Your task to perform on an android device: Open wifi settings Image 0: 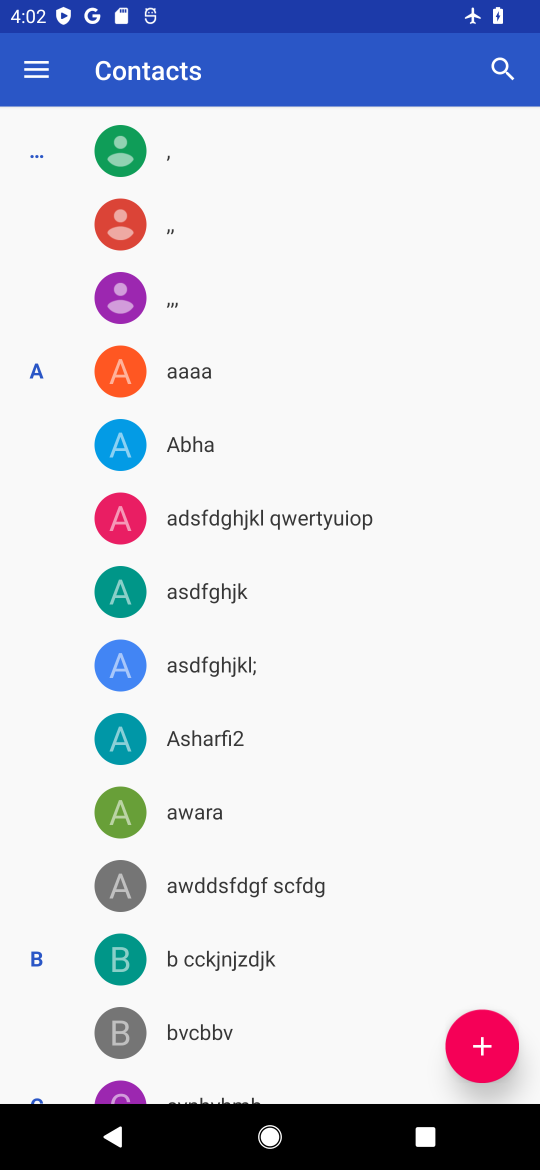
Step 0: press back button
Your task to perform on an android device: Open wifi settings Image 1: 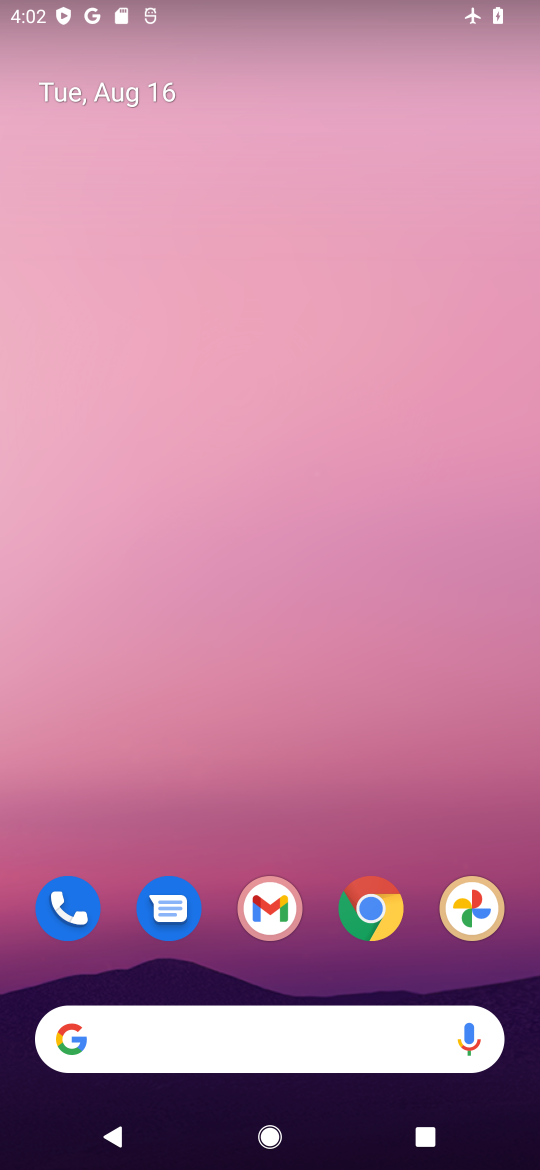
Step 1: drag from (122, 15) to (226, 684)
Your task to perform on an android device: Open wifi settings Image 2: 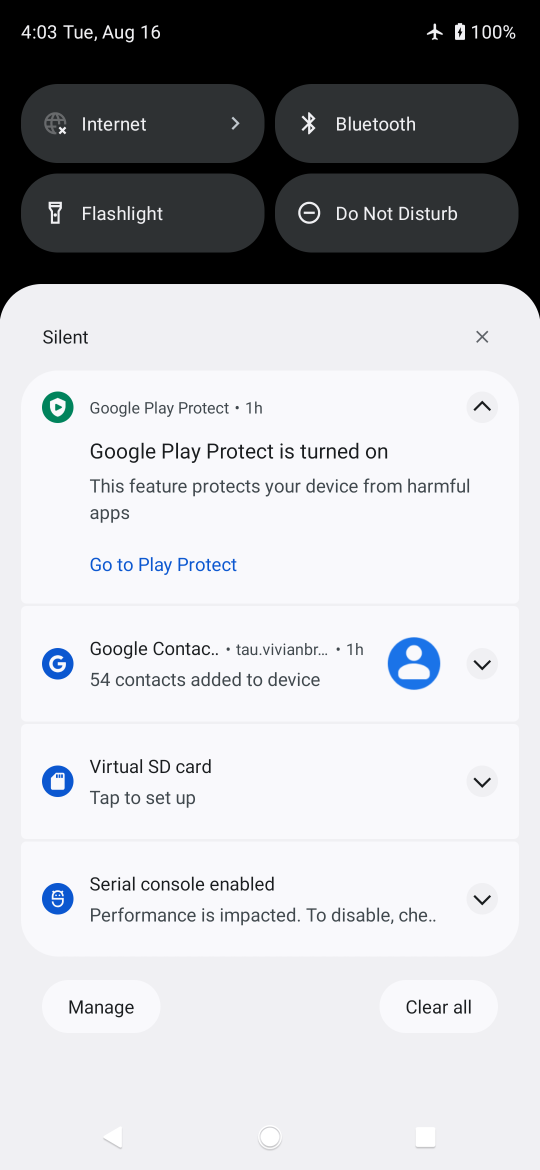
Step 2: drag from (293, 253) to (324, 965)
Your task to perform on an android device: Open wifi settings Image 3: 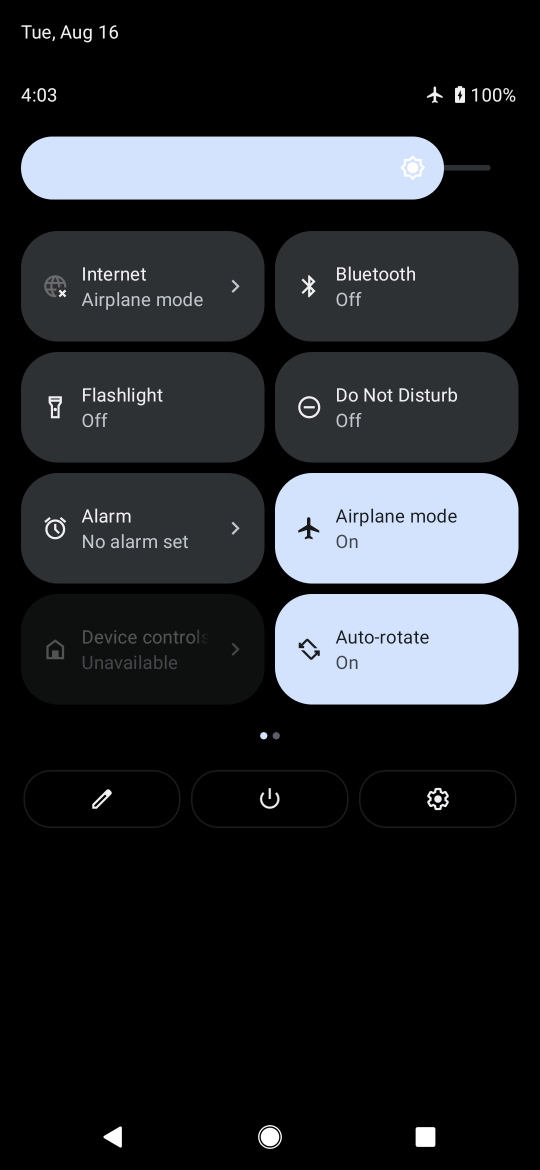
Step 3: click (360, 548)
Your task to perform on an android device: Open wifi settings Image 4: 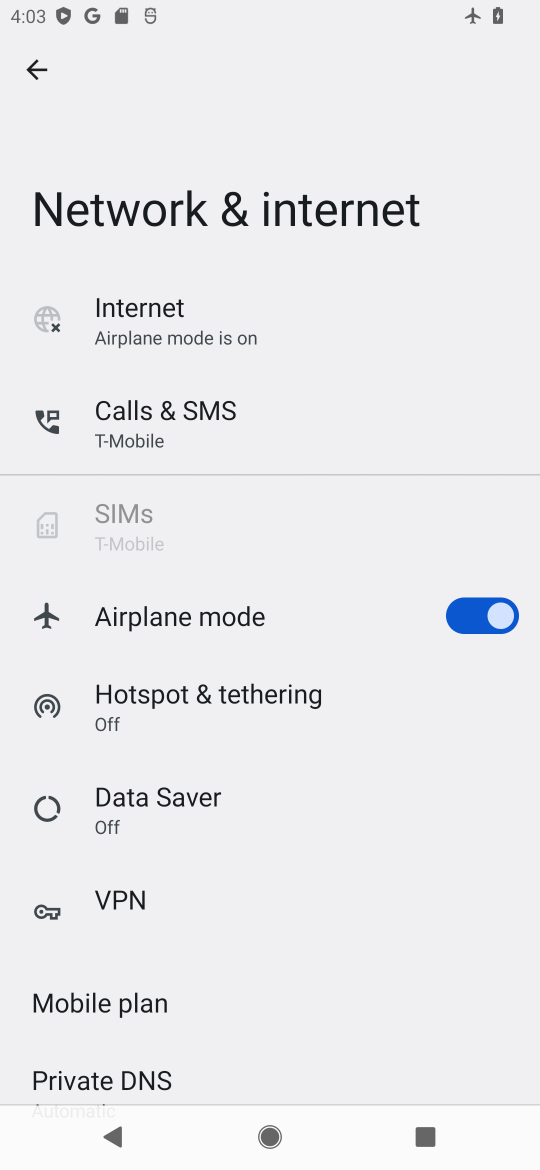
Step 4: click (494, 608)
Your task to perform on an android device: Open wifi settings Image 5: 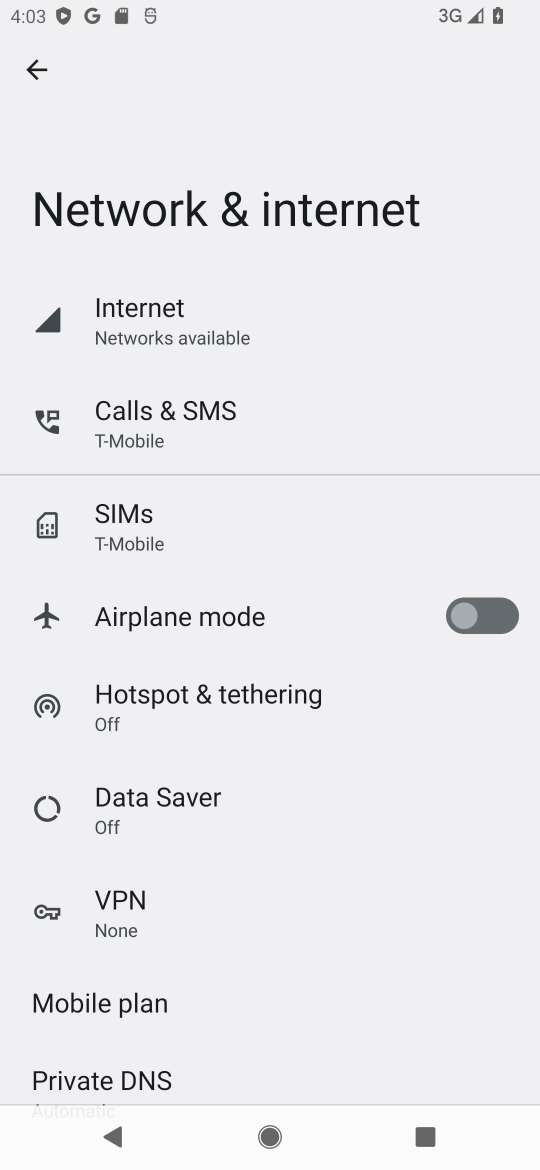
Step 5: drag from (156, 6) to (164, 802)
Your task to perform on an android device: Open wifi settings Image 6: 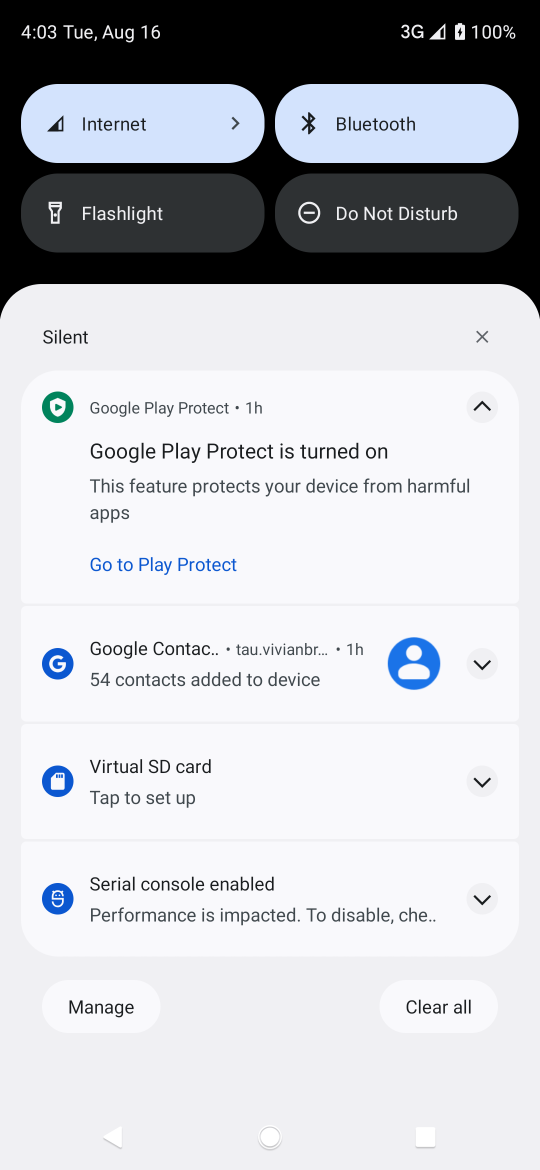
Step 6: drag from (299, 300) to (306, 1044)
Your task to perform on an android device: Open wifi settings Image 7: 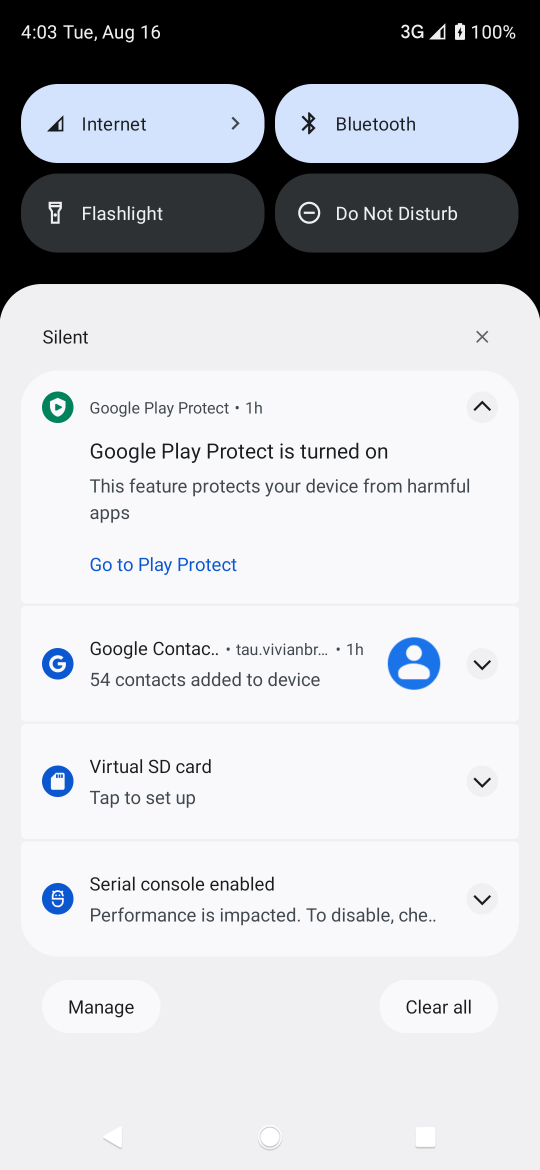
Step 7: click (109, 130)
Your task to perform on an android device: Open wifi settings Image 8: 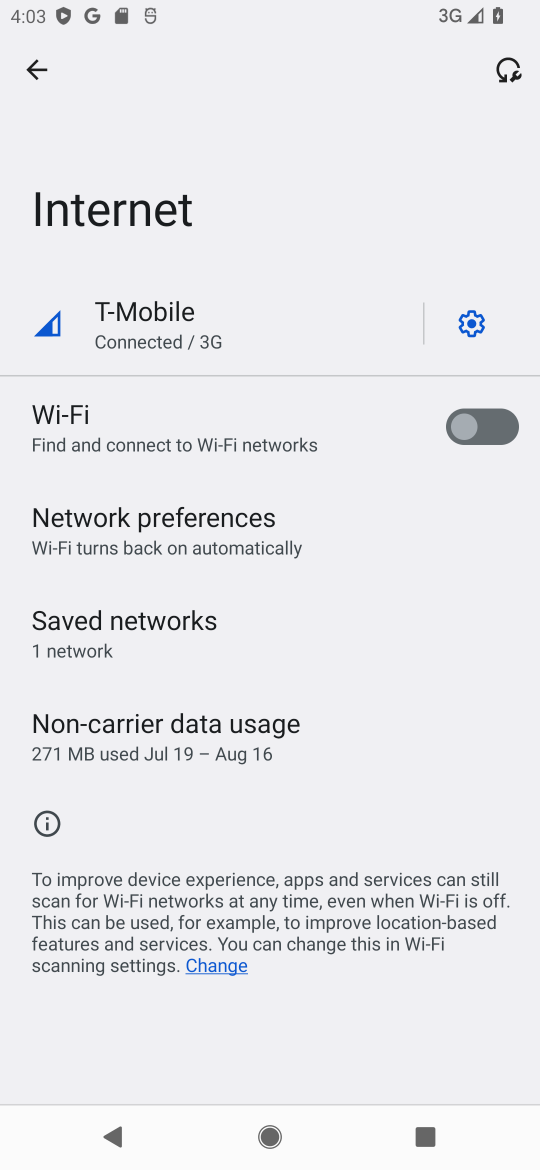
Step 8: task complete